Your task to perform on an android device: toggle wifi Image 0: 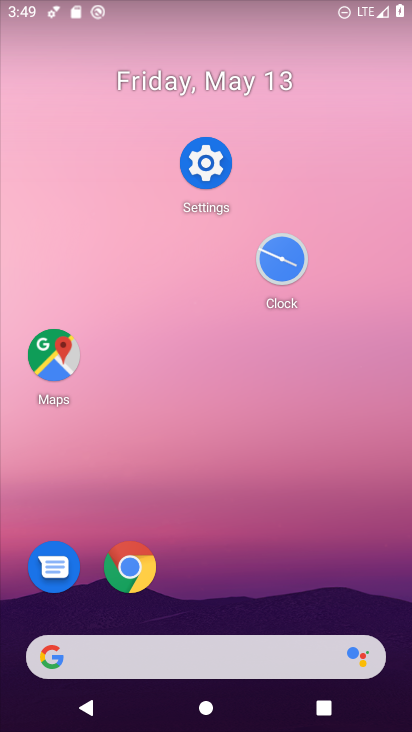
Step 0: click (215, 155)
Your task to perform on an android device: toggle wifi Image 1: 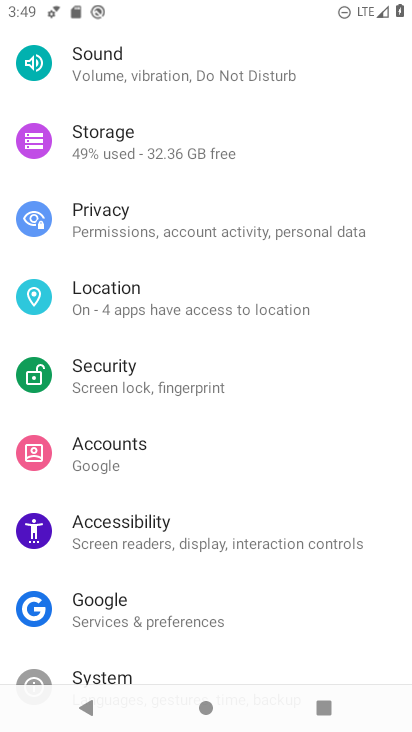
Step 1: drag from (184, 142) to (178, 477)
Your task to perform on an android device: toggle wifi Image 2: 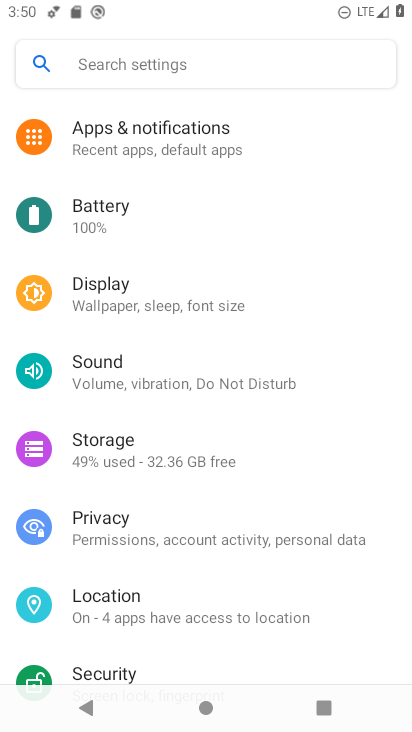
Step 2: drag from (220, 131) to (229, 519)
Your task to perform on an android device: toggle wifi Image 3: 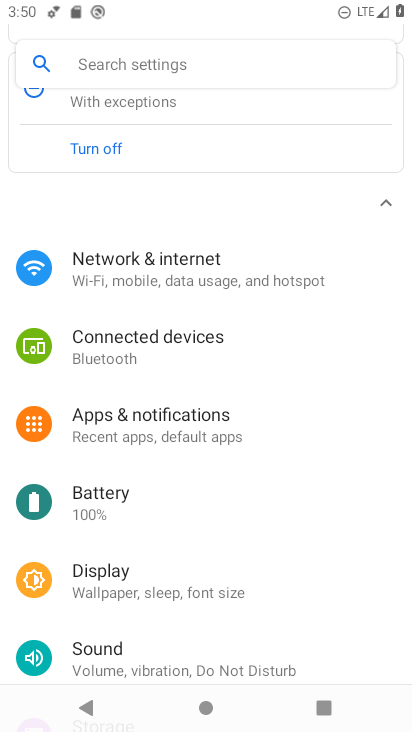
Step 3: click (261, 262)
Your task to perform on an android device: toggle wifi Image 4: 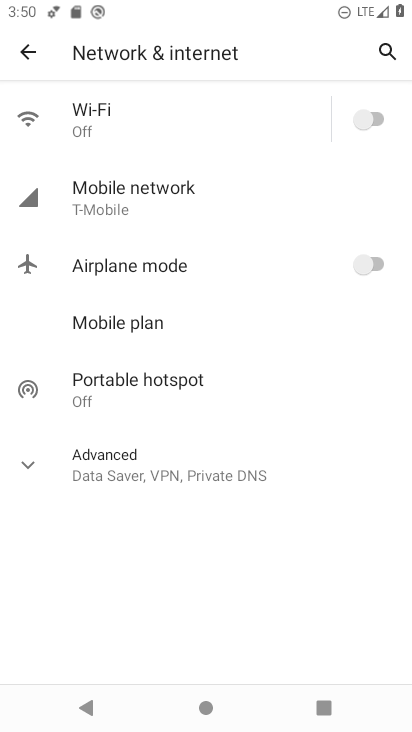
Step 4: click (240, 124)
Your task to perform on an android device: toggle wifi Image 5: 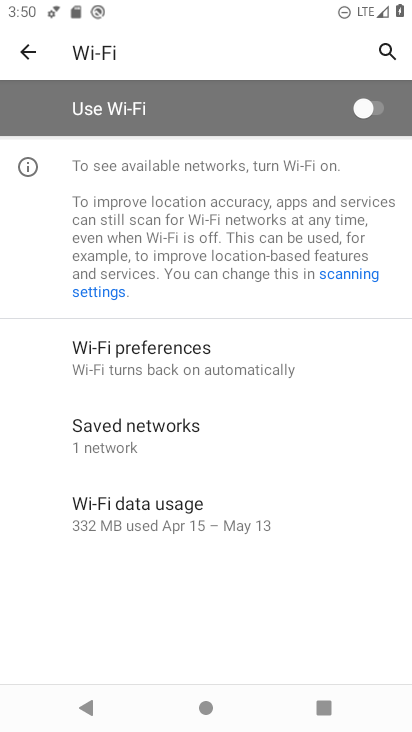
Step 5: click (391, 109)
Your task to perform on an android device: toggle wifi Image 6: 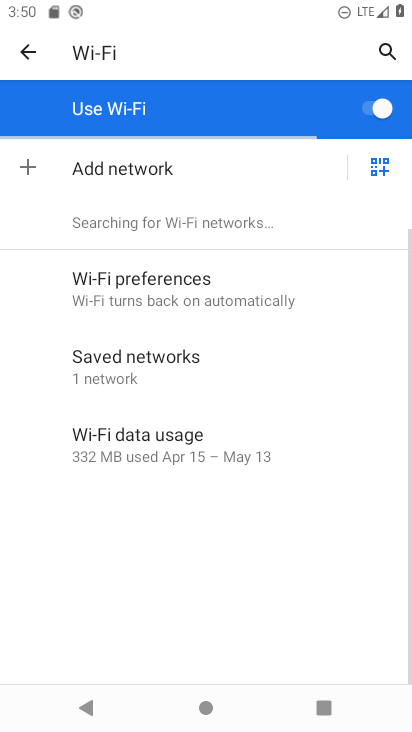
Step 6: task complete